Your task to perform on an android device: turn off location history Image 0: 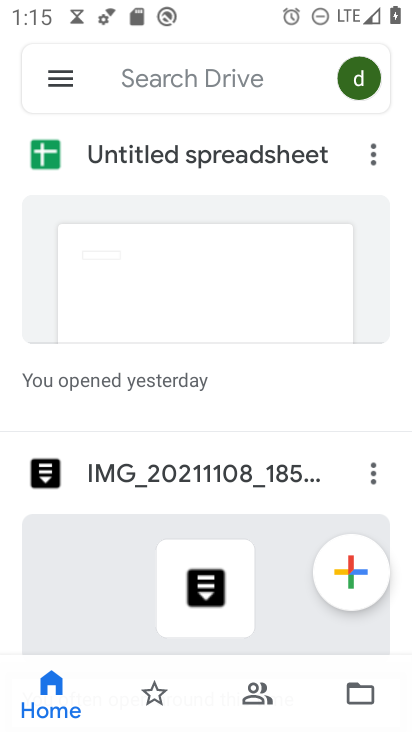
Step 0: press home button
Your task to perform on an android device: turn off location history Image 1: 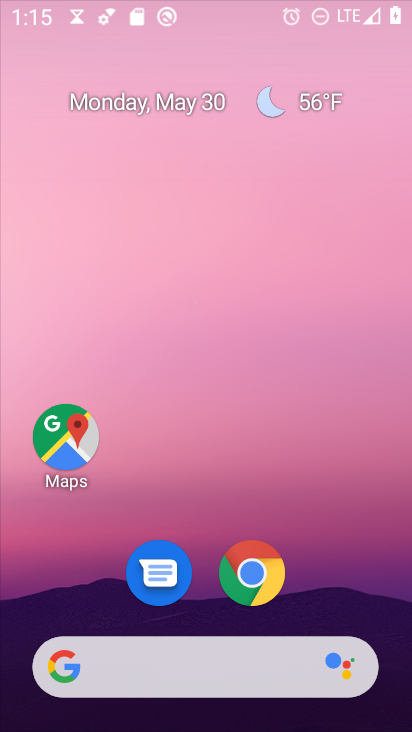
Step 1: drag from (267, 696) to (123, 1)
Your task to perform on an android device: turn off location history Image 2: 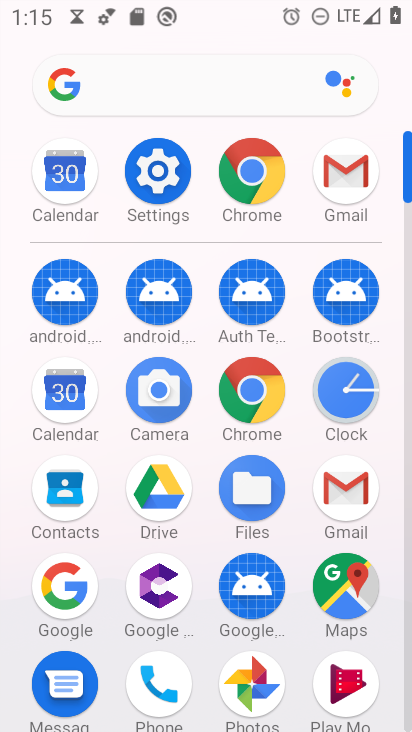
Step 2: click (161, 169)
Your task to perform on an android device: turn off location history Image 3: 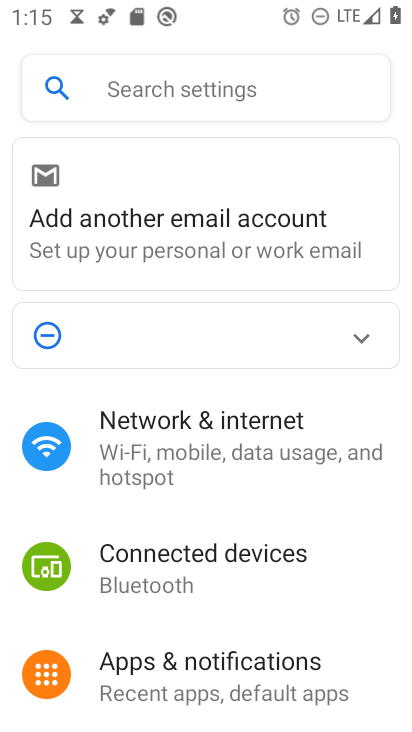
Step 3: drag from (248, 642) to (167, 14)
Your task to perform on an android device: turn off location history Image 4: 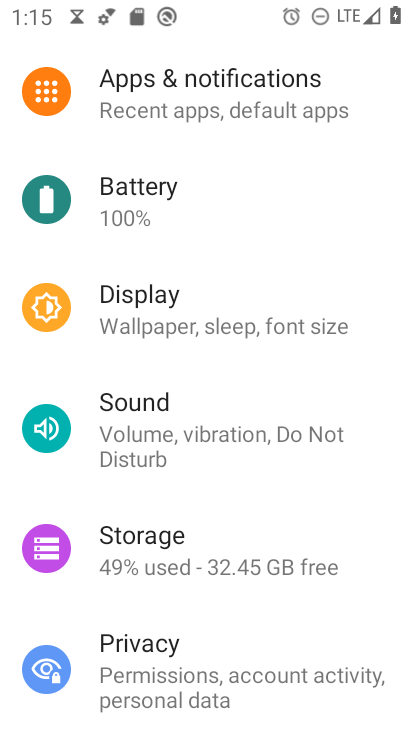
Step 4: drag from (258, 614) to (270, 193)
Your task to perform on an android device: turn off location history Image 5: 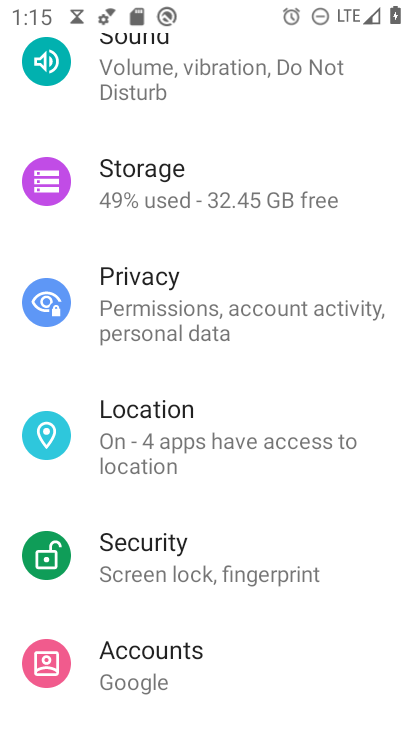
Step 5: click (200, 419)
Your task to perform on an android device: turn off location history Image 6: 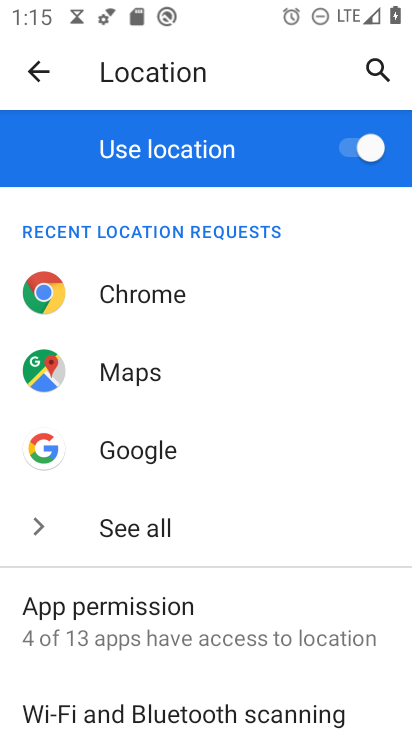
Step 6: drag from (86, 717) to (172, 86)
Your task to perform on an android device: turn off location history Image 7: 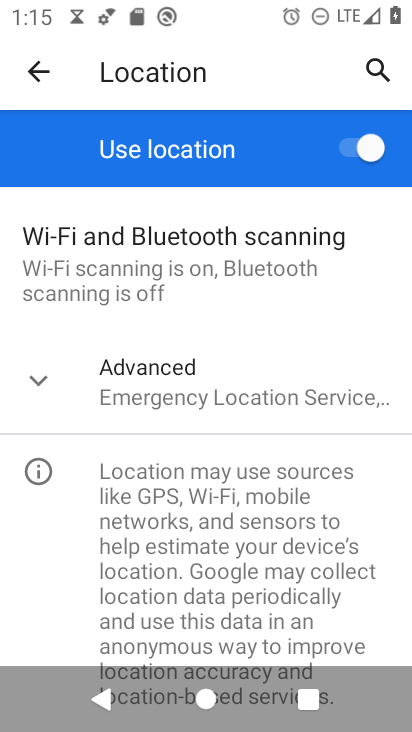
Step 7: click (240, 392)
Your task to perform on an android device: turn off location history Image 8: 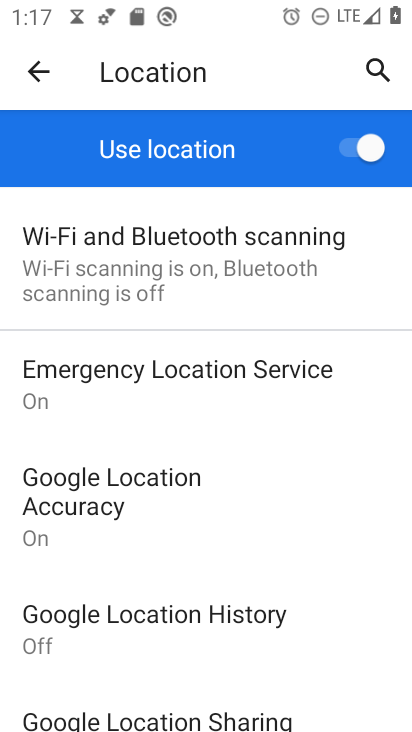
Step 8: click (213, 622)
Your task to perform on an android device: turn off location history Image 9: 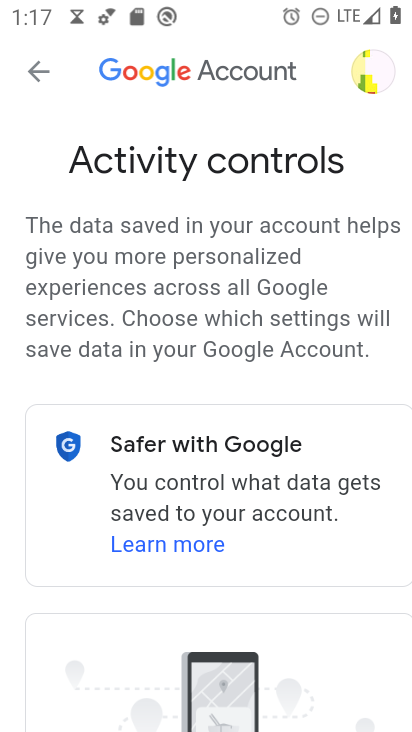
Step 9: task complete